Your task to perform on an android device: show emergency info Image 0: 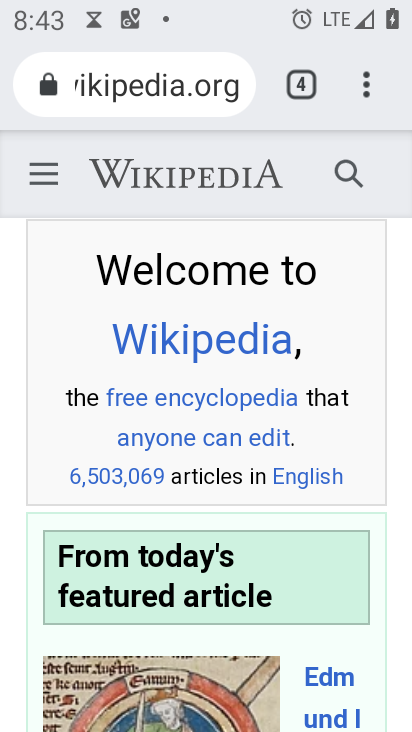
Step 0: press home button
Your task to perform on an android device: show emergency info Image 1: 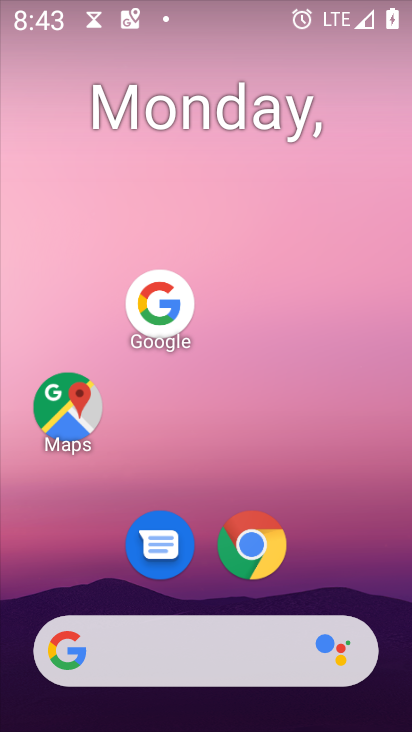
Step 1: drag from (225, 656) to (303, 191)
Your task to perform on an android device: show emergency info Image 2: 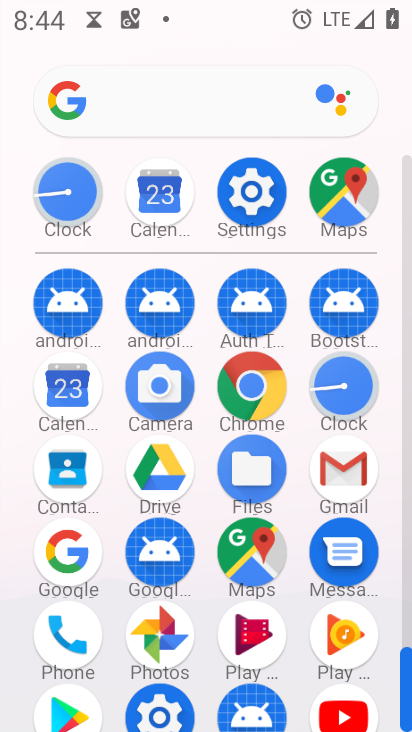
Step 2: click (252, 194)
Your task to perform on an android device: show emergency info Image 3: 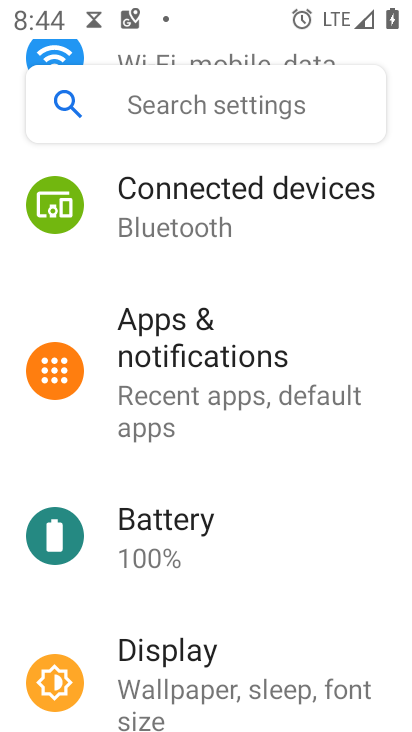
Step 3: drag from (286, 648) to (366, 227)
Your task to perform on an android device: show emergency info Image 4: 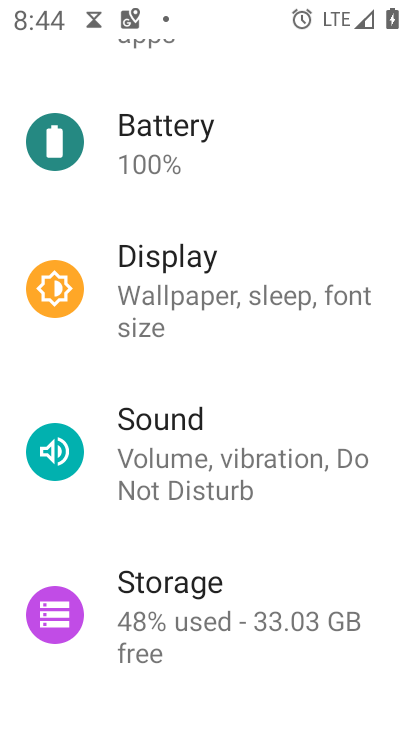
Step 4: drag from (256, 678) to (375, 280)
Your task to perform on an android device: show emergency info Image 5: 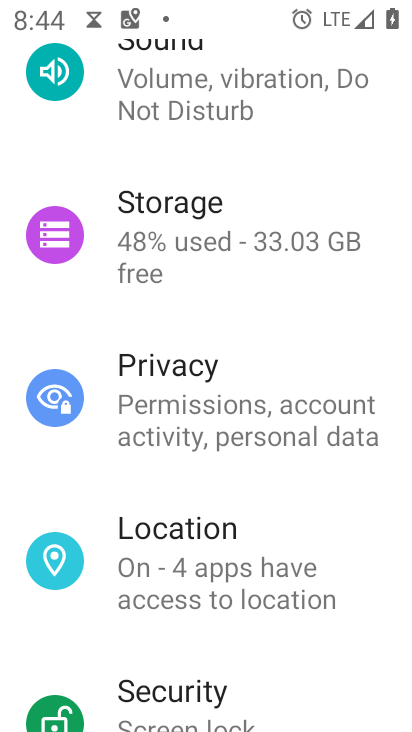
Step 5: drag from (272, 668) to (403, 178)
Your task to perform on an android device: show emergency info Image 6: 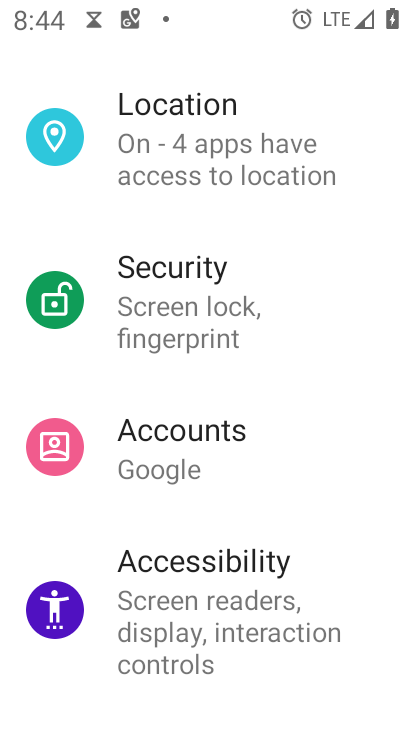
Step 6: drag from (288, 504) to (391, 5)
Your task to perform on an android device: show emergency info Image 7: 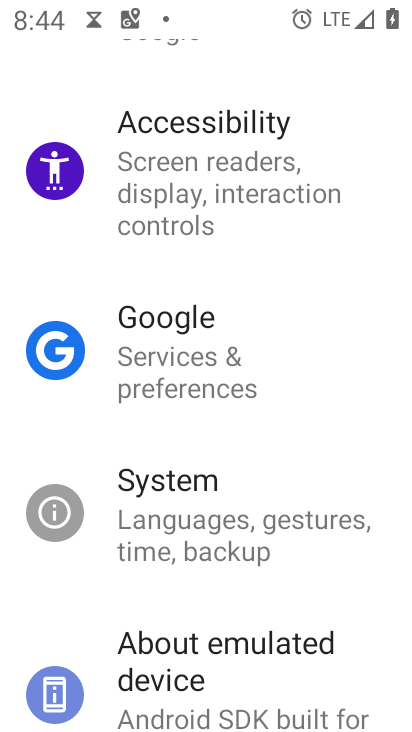
Step 7: drag from (253, 602) to (352, 144)
Your task to perform on an android device: show emergency info Image 8: 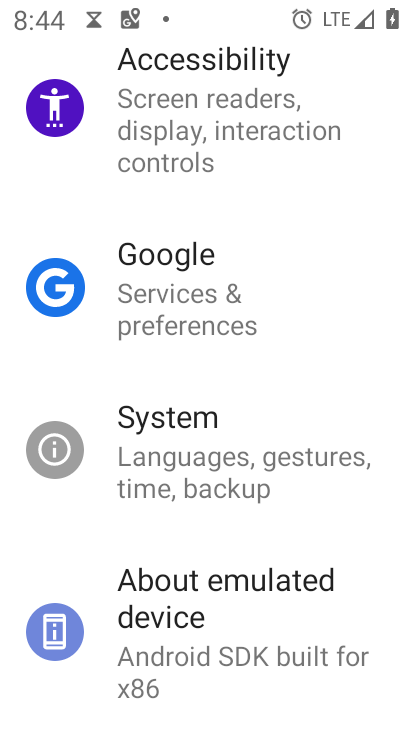
Step 8: click (174, 620)
Your task to perform on an android device: show emergency info Image 9: 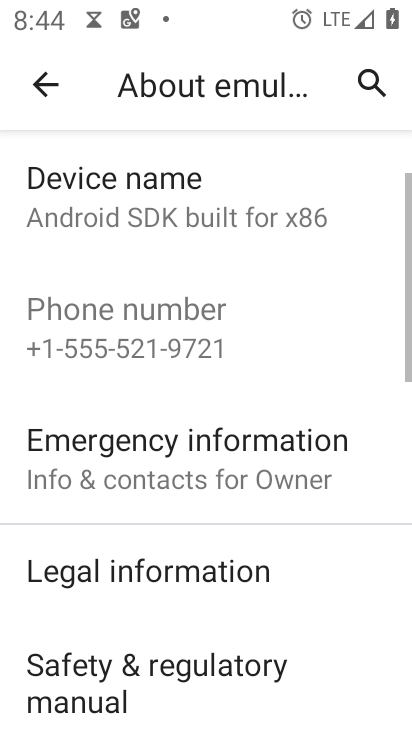
Step 9: click (223, 444)
Your task to perform on an android device: show emergency info Image 10: 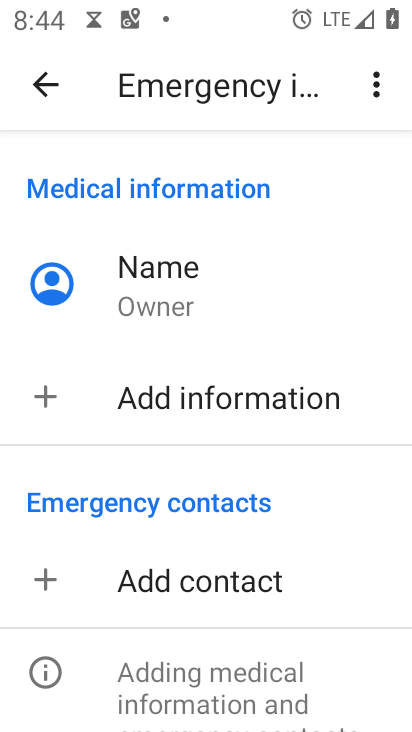
Step 10: task complete